Your task to perform on an android device: Go to accessibility settings Image 0: 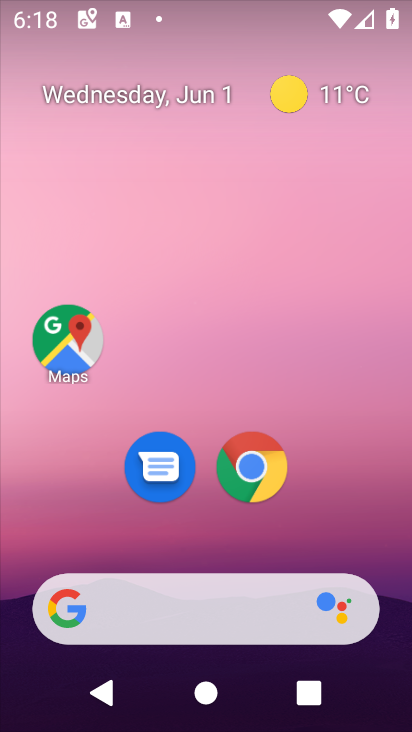
Step 0: drag from (315, 417) to (200, 48)
Your task to perform on an android device: Go to accessibility settings Image 1: 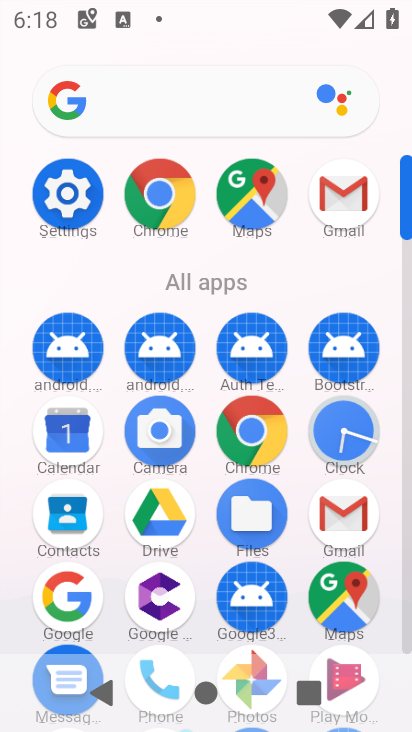
Step 1: click (78, 211)
Your task to perform on an android device: Go to accessibility settings Image 2: 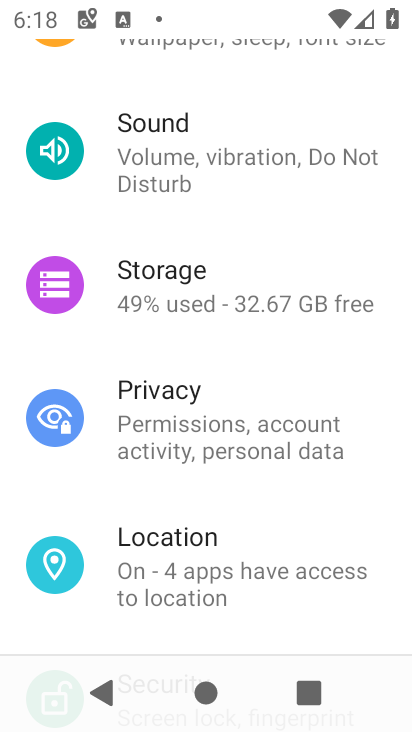
Step 2: drag from (249, 501) to (240, 95)
Your task to perform on an android device: Go to accessibility settings Image 3: 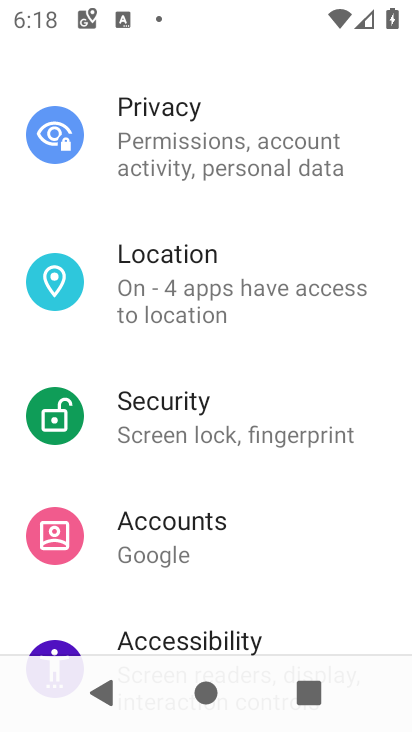
Step 3: click (125, 627)
Your task to perform on an android device: Go to accessibility settings Image 4: 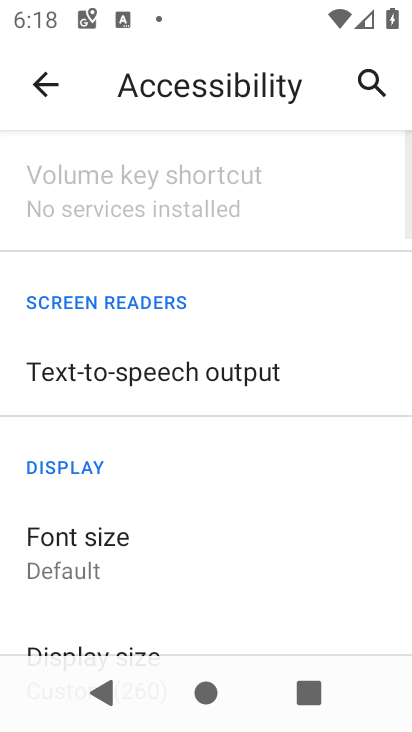
Step 4: task complete